Your task to perform on an android device: Open Google Image 0: 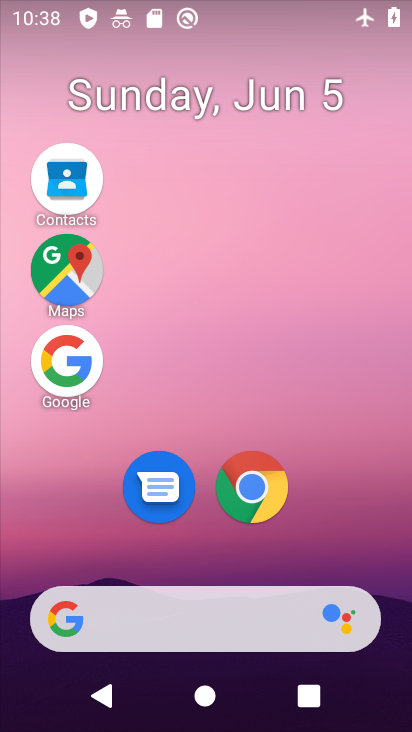
Step 0: drag from (115, 509) to (228, 15)
Your task to perform on an android device: Open Google Image 1: 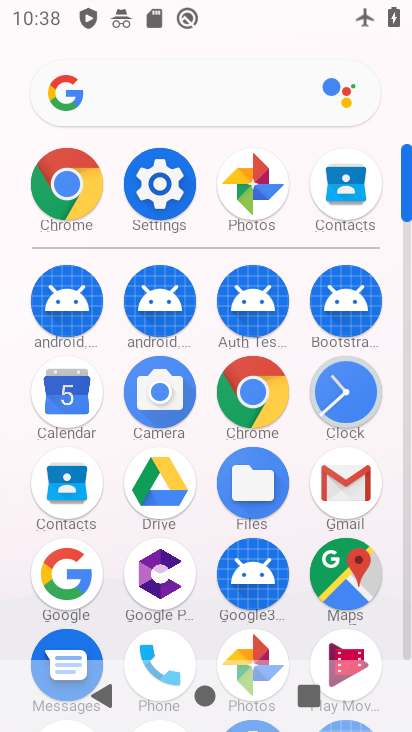
Step 1: click (71, 595)
Your task to perform on an android device: Open Google Image 2: 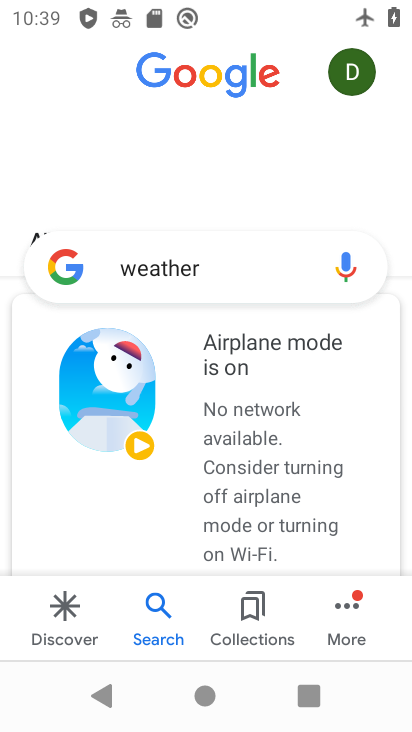
Step 2: task complete